Your task to perform on an android device: Open privacy settings Image 0: 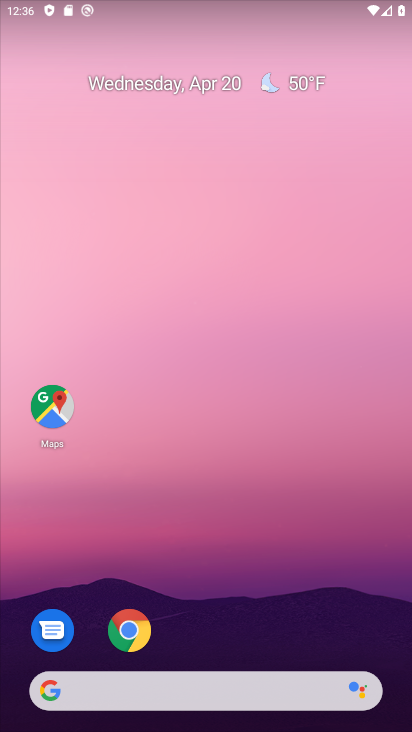
Step 0: click (130, 632)
Your task to perform on an android device: Open privacy settings Image 1: 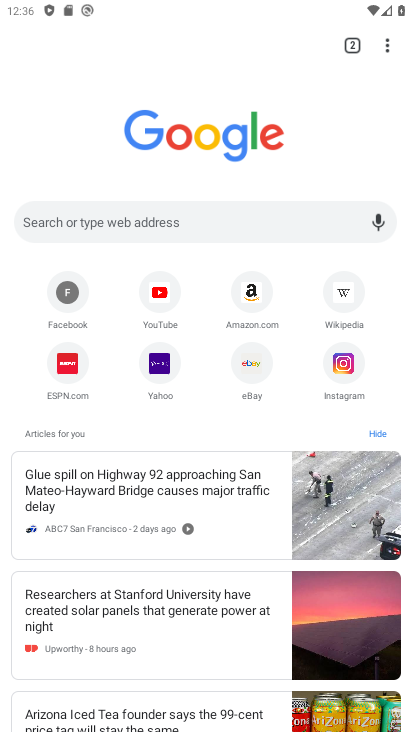
Step 1: click (383, 45)
Your task to perform on an android device: Open privacy settings Image 2: 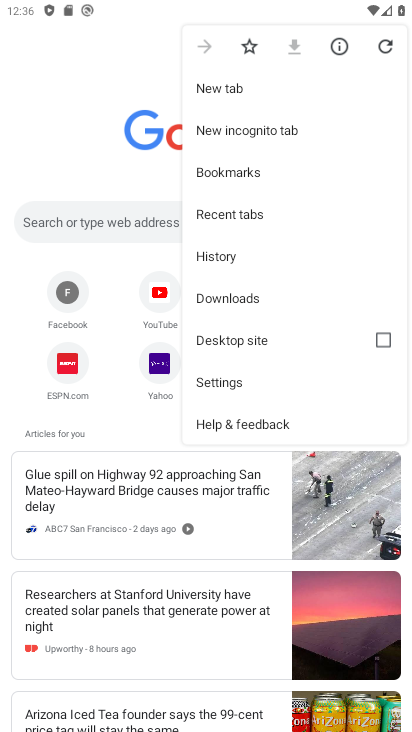
Step 2: click (225, 383)
Your task to perform on an android device: Open privacy settings Image 3: 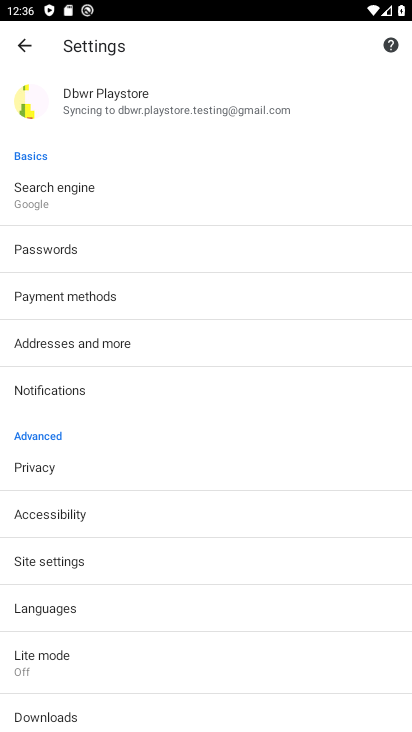
Step 3: click (46, 467)
Your task to perform on an android device: Open privacy settings Image 4: 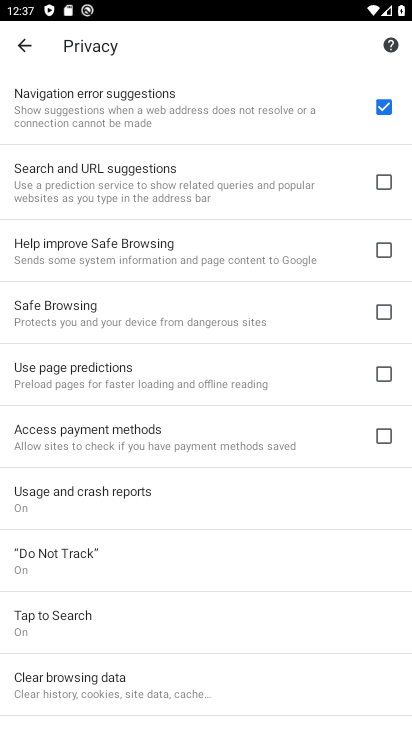
Step 4: task complete